Your task to perform on an android device: Go to calendar. Show me events next week Image 0: 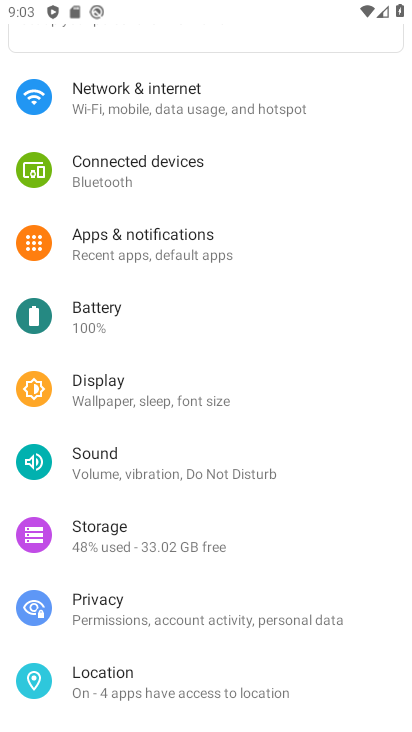
Step 0: press home button
Your task to perform on an android device: Go to calendar. Show me events next week Image 1: 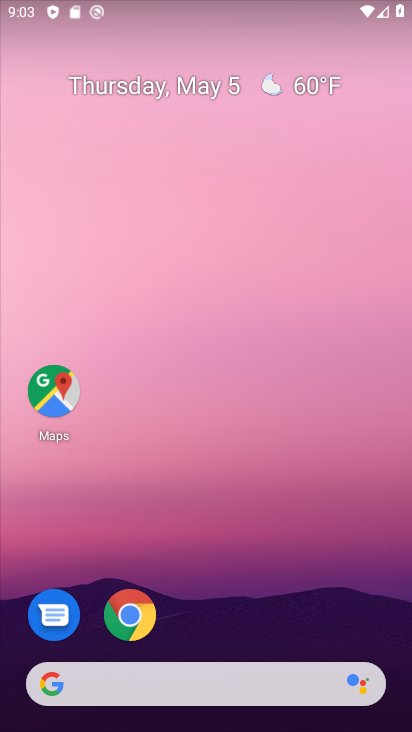
Step 1: drag from (235, 597) to (290, 77)
Your task to perform on an android device: Go to calendar. Show me events next week Image 2: 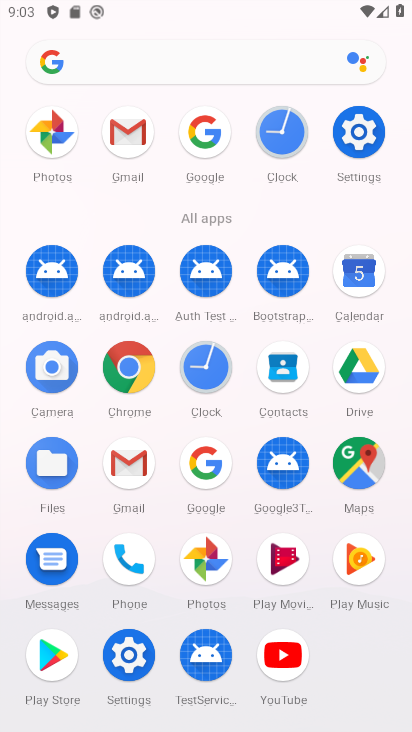
Step 2: click (360, 276)
Your task to perform on an android device: Go to calendar. Show me events next week Image 3: 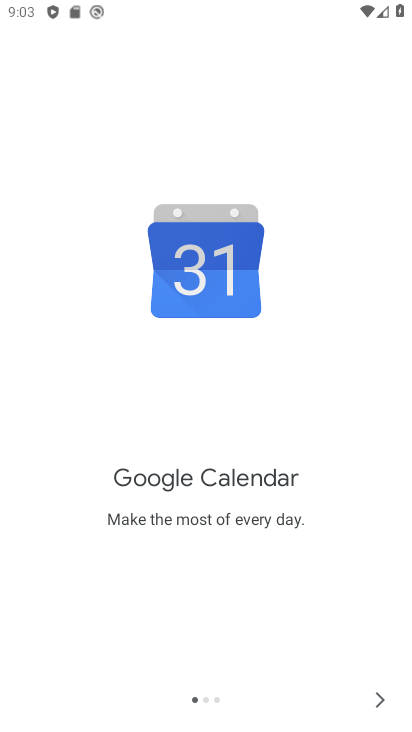
Step 3: click (373, 687)
Your task to perform on an android device: Go to calendar. Show me events next week Image 4: 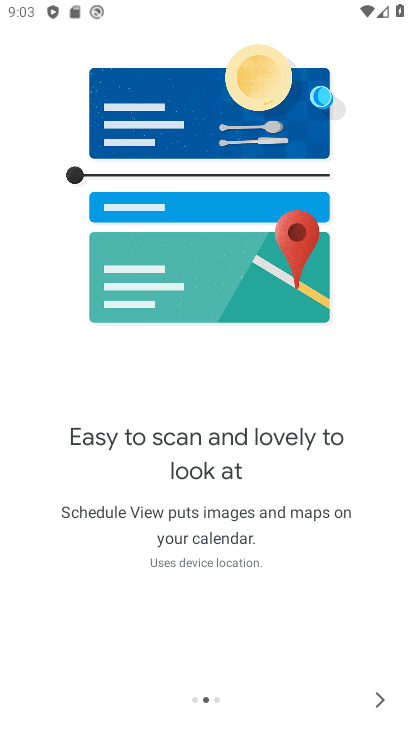
Step 4: click (369, 693)
Your task to perform on an android device: Go to calendar. Show me events next week Image 5: 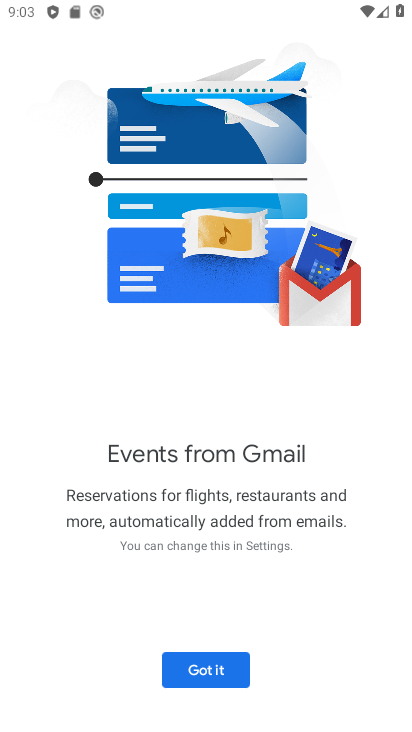
Step 5: click (210, 668)
Your task to perform on an android device: Go to calendar. Show me events next week Image 6: 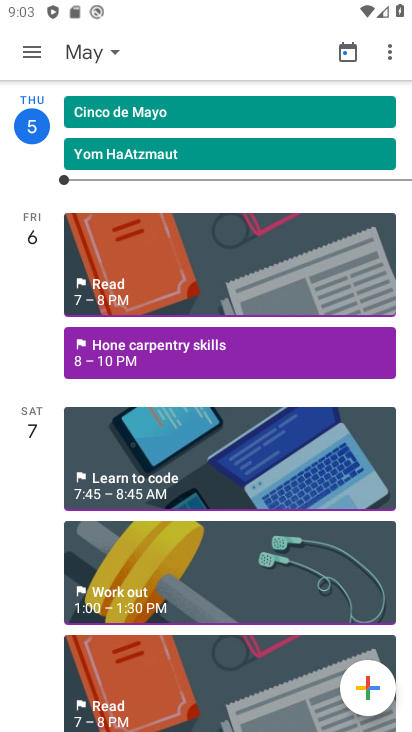
Step 6: click (117, 55)
Your task to perform on an android device: Go to calendar. Show me events next week Image 7: 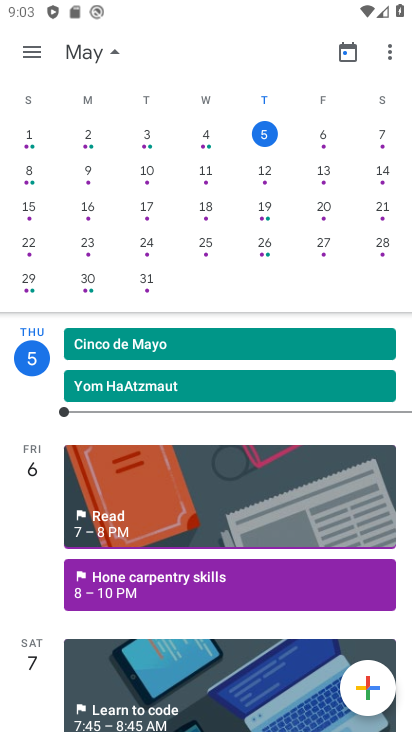
Step 7: click (261, 171)
Your task to perform on an android device: Go to calendar. Show me events next week Image 8: 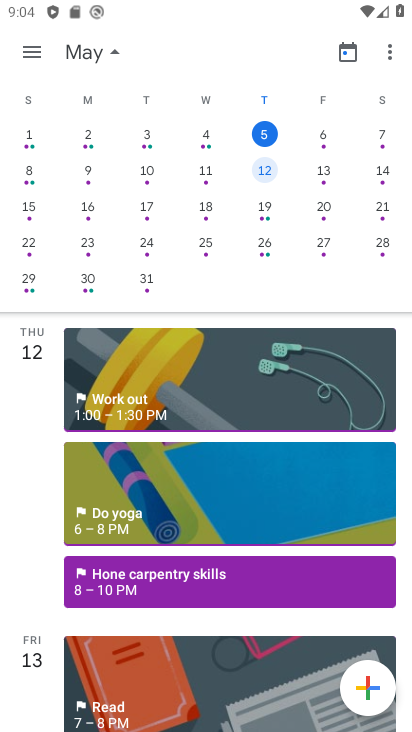
Step 8: task complete